Your task to perform on an android device: turn on showing notifications on the lock screen Image 0: 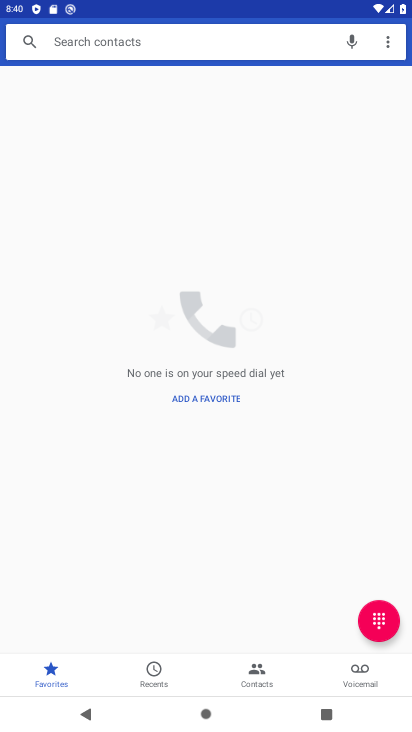
Step 0: press home button
Your task to perform on an android device: turn on showing notifications on the lock screen Image 1: 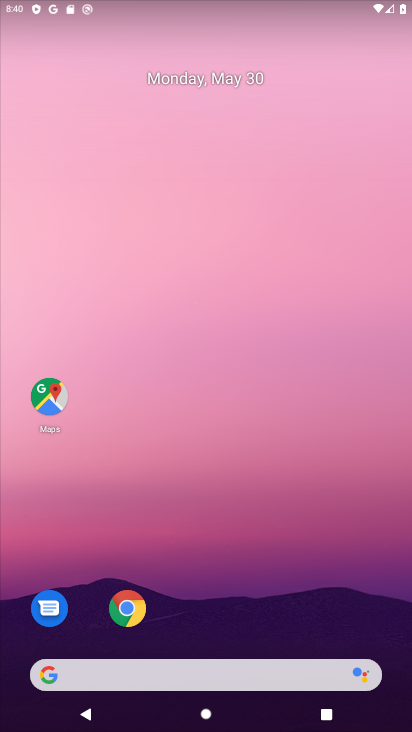
Step 1: drag from (201, 654) to (288, 102)
Your task to perform on an android device: turn on showing notifications on the lock screen Image 2: 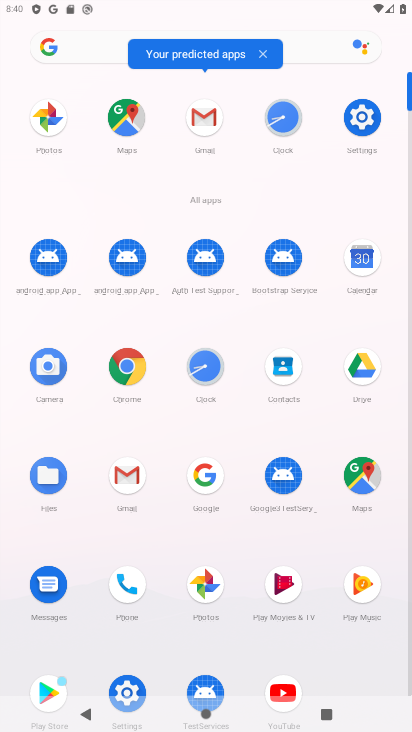
Step 2: click (142, 681)
Your task to perform on an android device: turn on showing notifications on the lock screen Image 3: 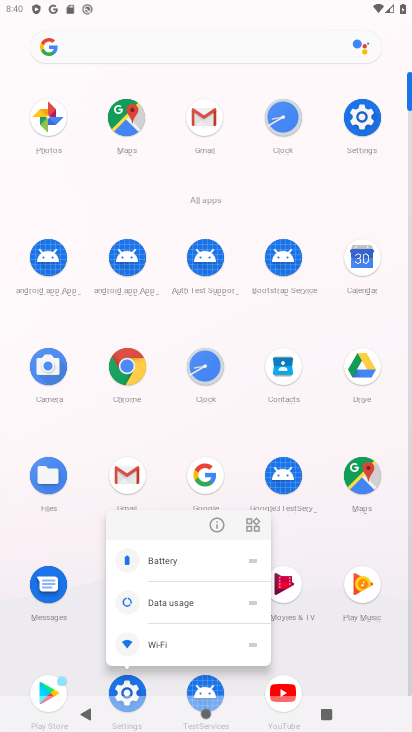
Step 3: click (123, 687)
Your task to perform on an android device: turn on showing notifications on the lock screen Image 4: 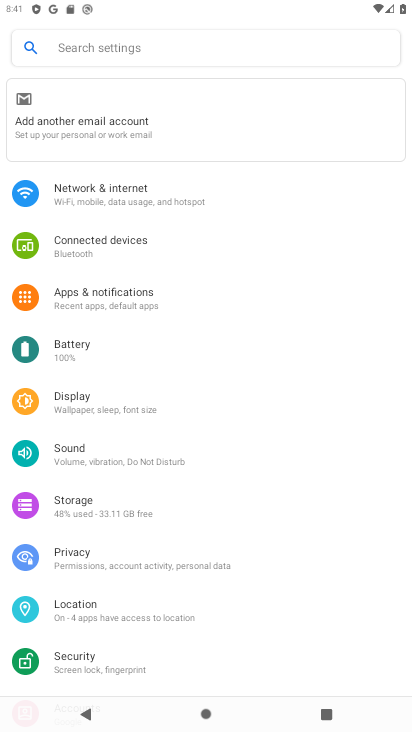
Step 4: click (162, 303)
Your task to perform on an android device: turn on showing notifications on the lock screen Image 5: 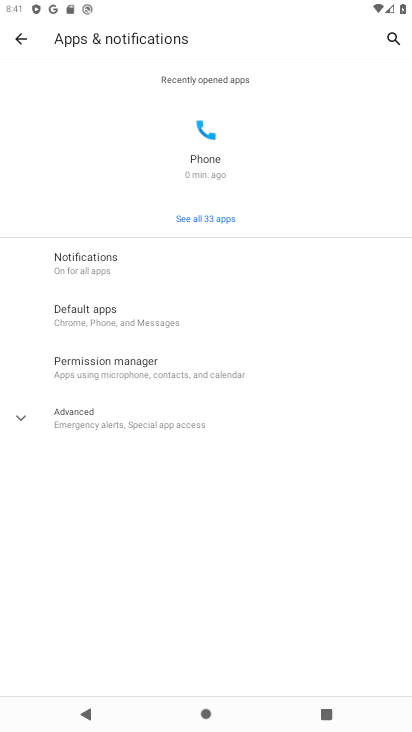
Step 5: click (148, 260)
Your task to perform on an android device: turn on showing notifications on the lock screen Image 6: 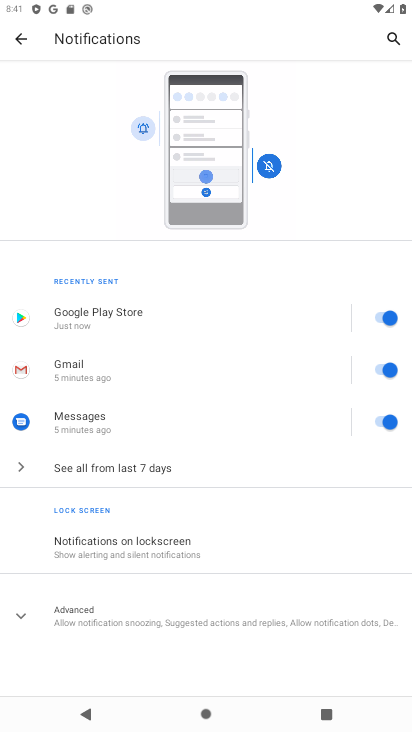
Step 6: click (257, 563)
Your task to perform on an android device: turn on showing notifications on the lock screen Image 7: 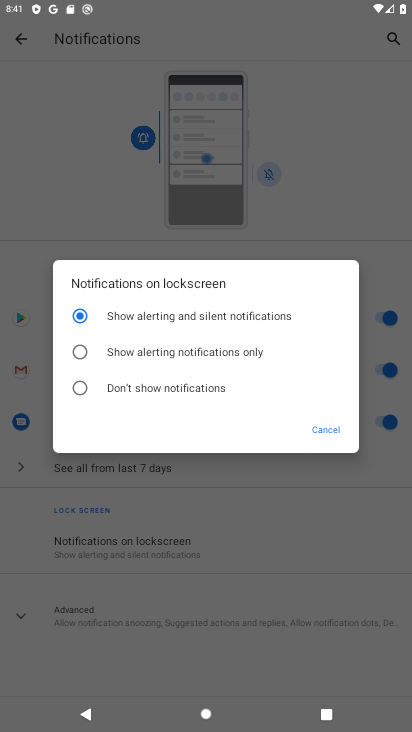
Step 7: task complete